Your task to perform on an android device: create a new album in the google photos Image 0: 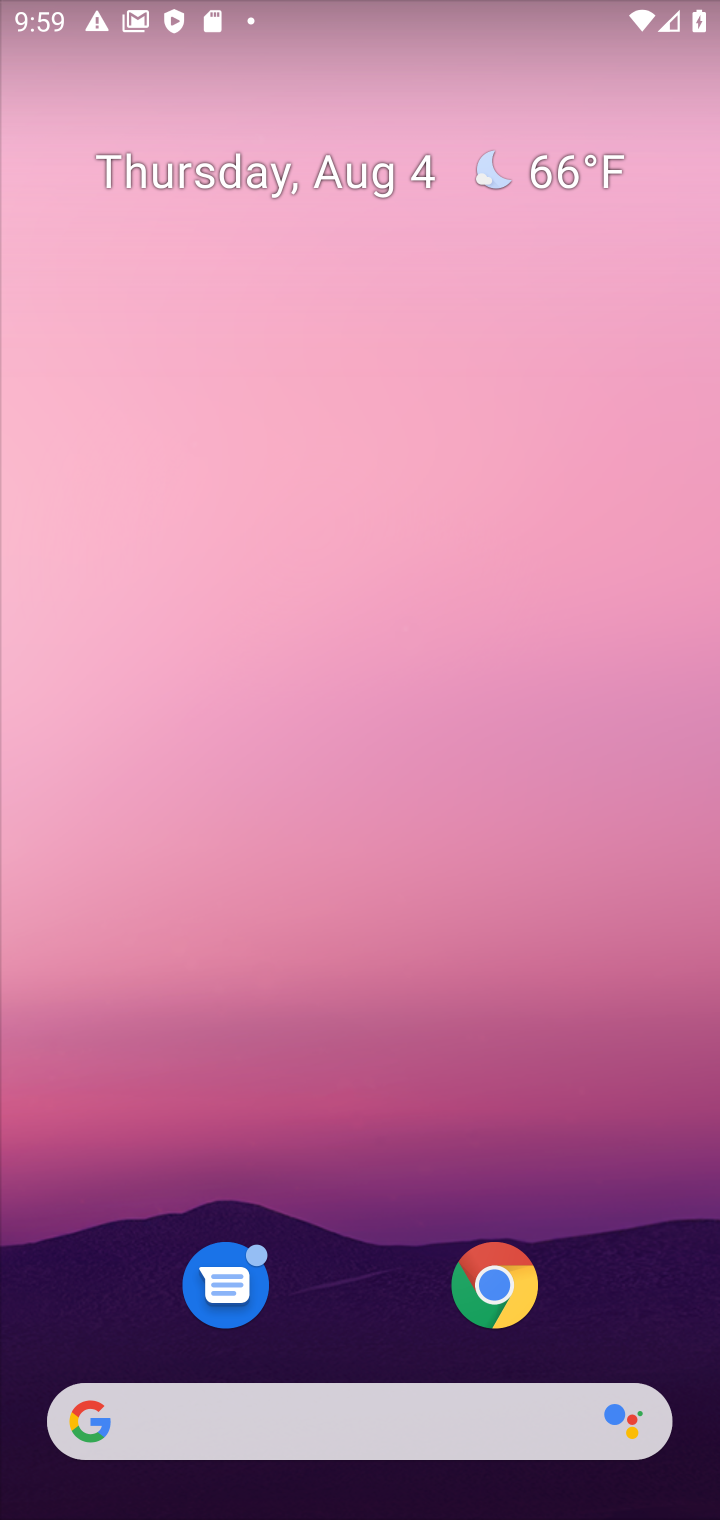
Step 0: drag from (303, 1260) to (353, 46)
Your task to perform on an android device: create a new album in the google photos Image 1: 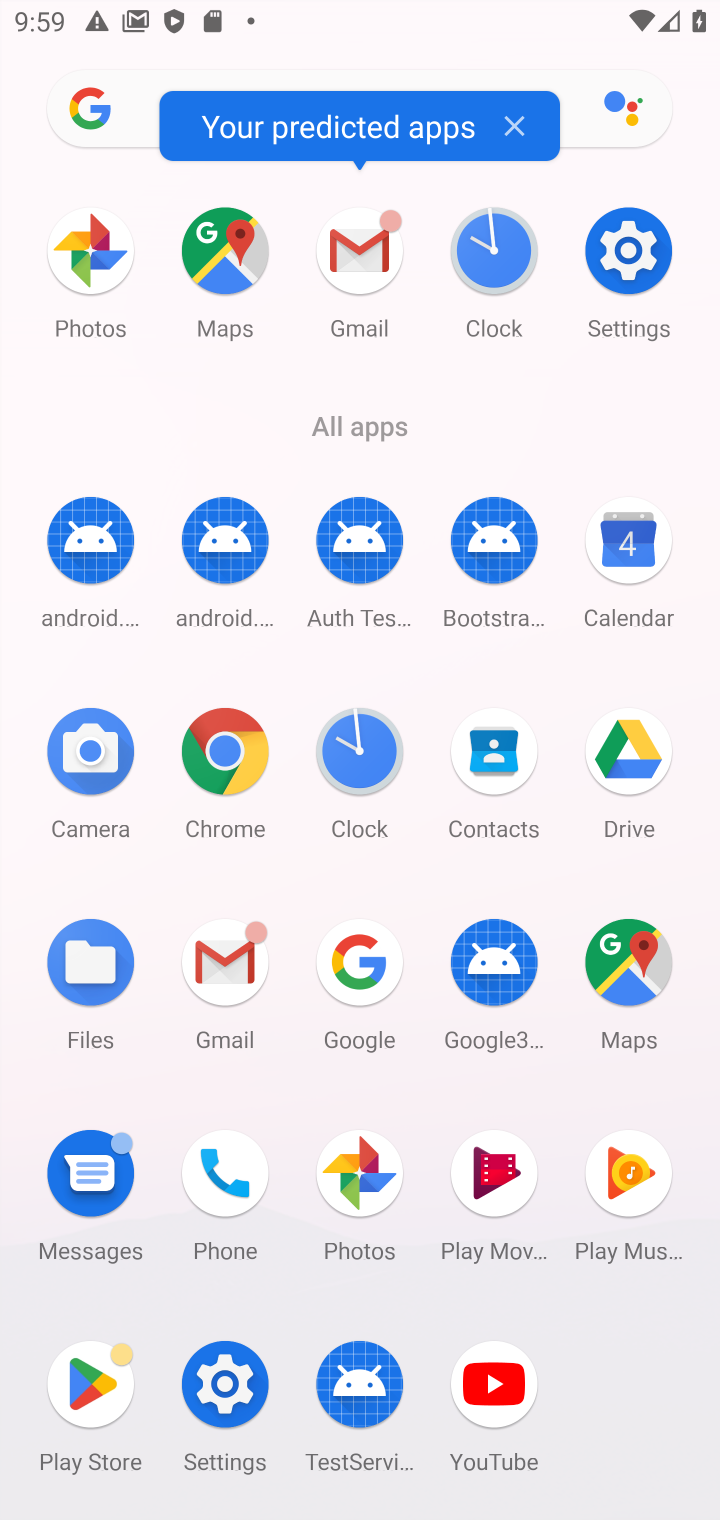
Step 1: click (350, 1164)
Your task to perform on an android device: create a new album in the google photos Image 2: 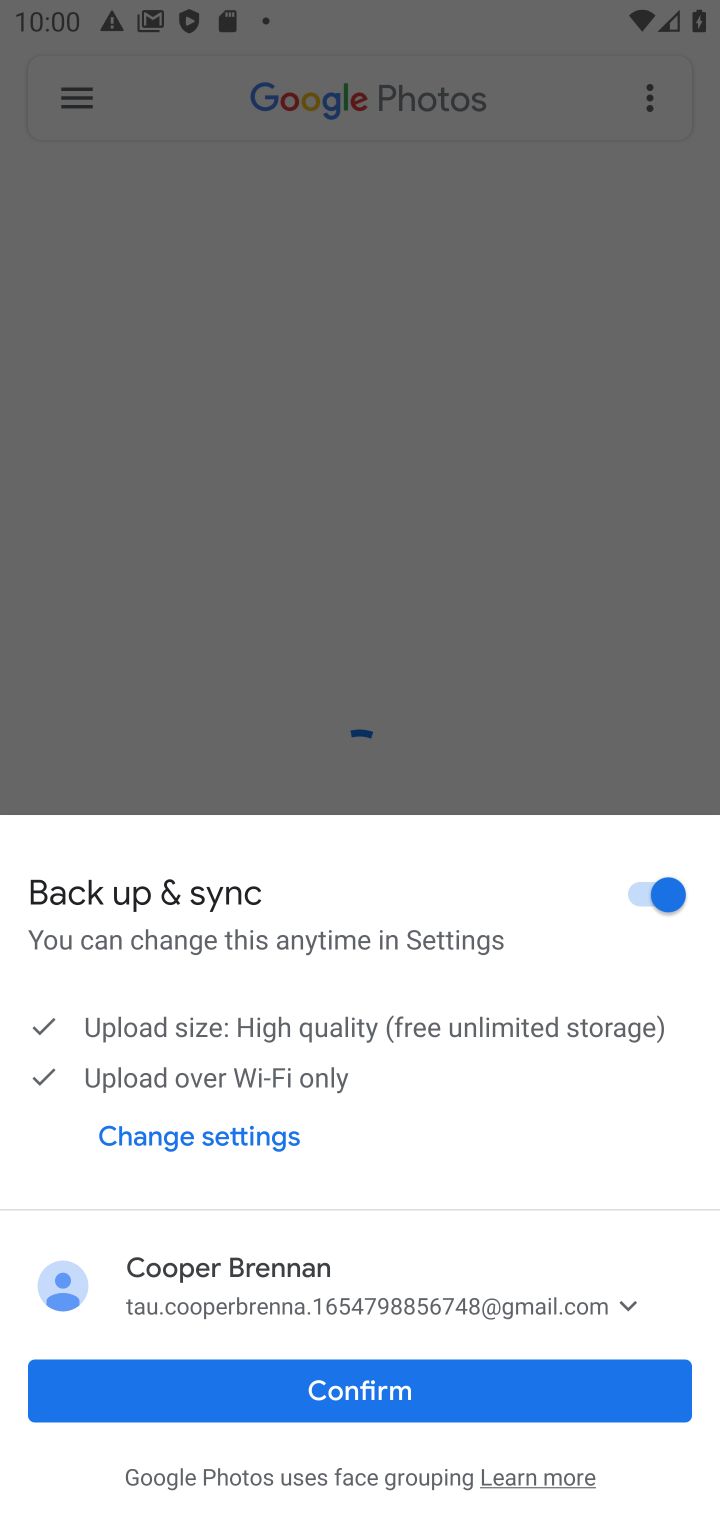
Step 2: click (463, 1392)
Your task to perform on an android device: create a new album in the google photos Image 3: 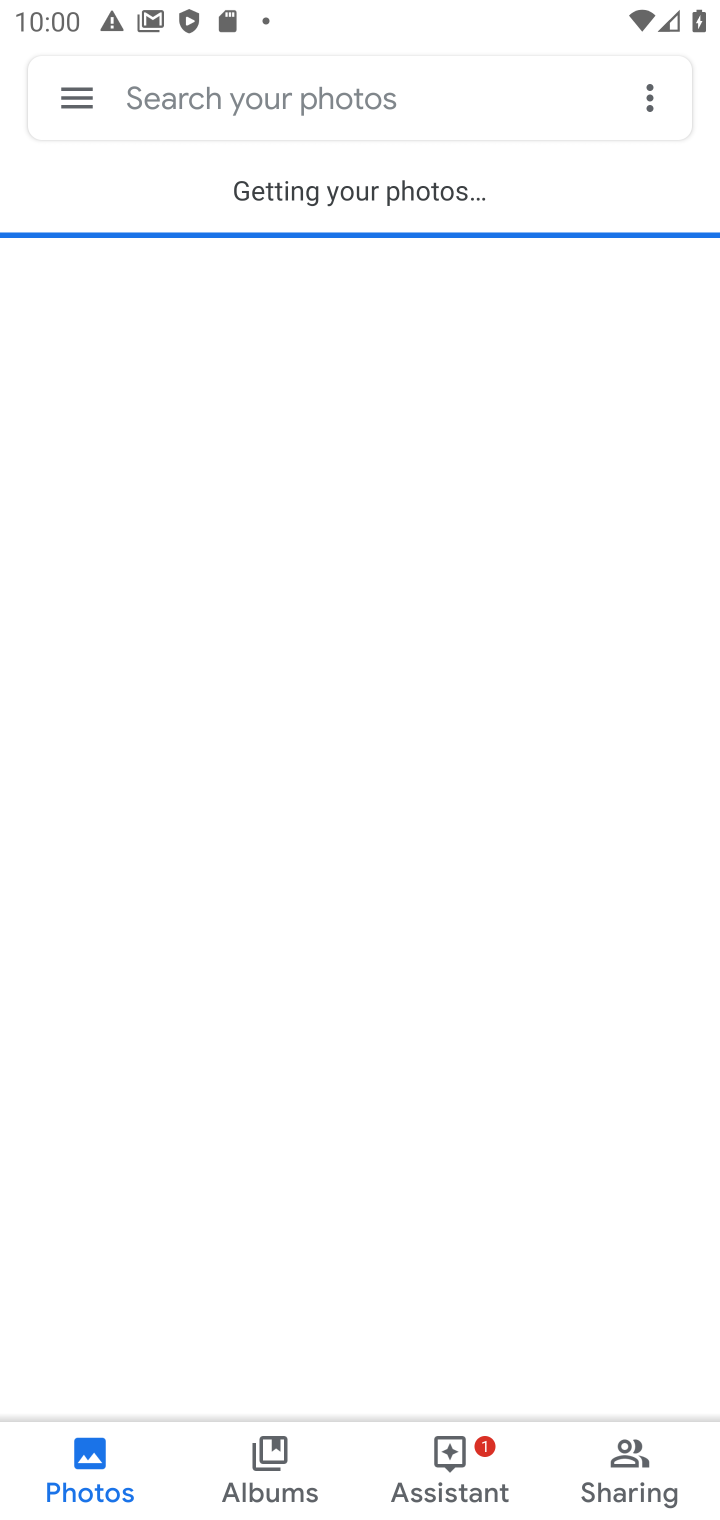
Step 3: click (67, 99)
Your task to perform on an android device: create a new album in the google photos Image 4: 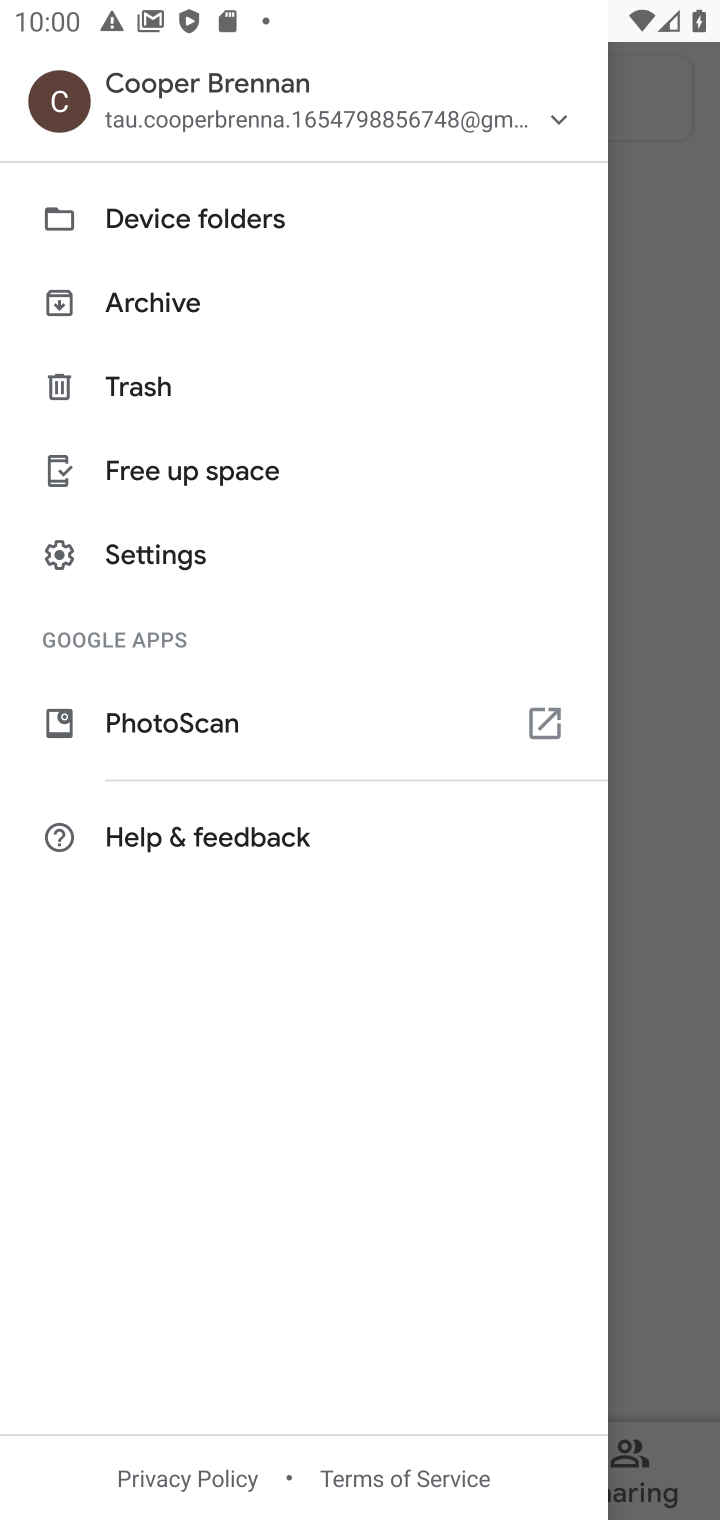
Step 4: click (649, 484)
Your task to perform on an android device: create a new album in the google photos Image 5: 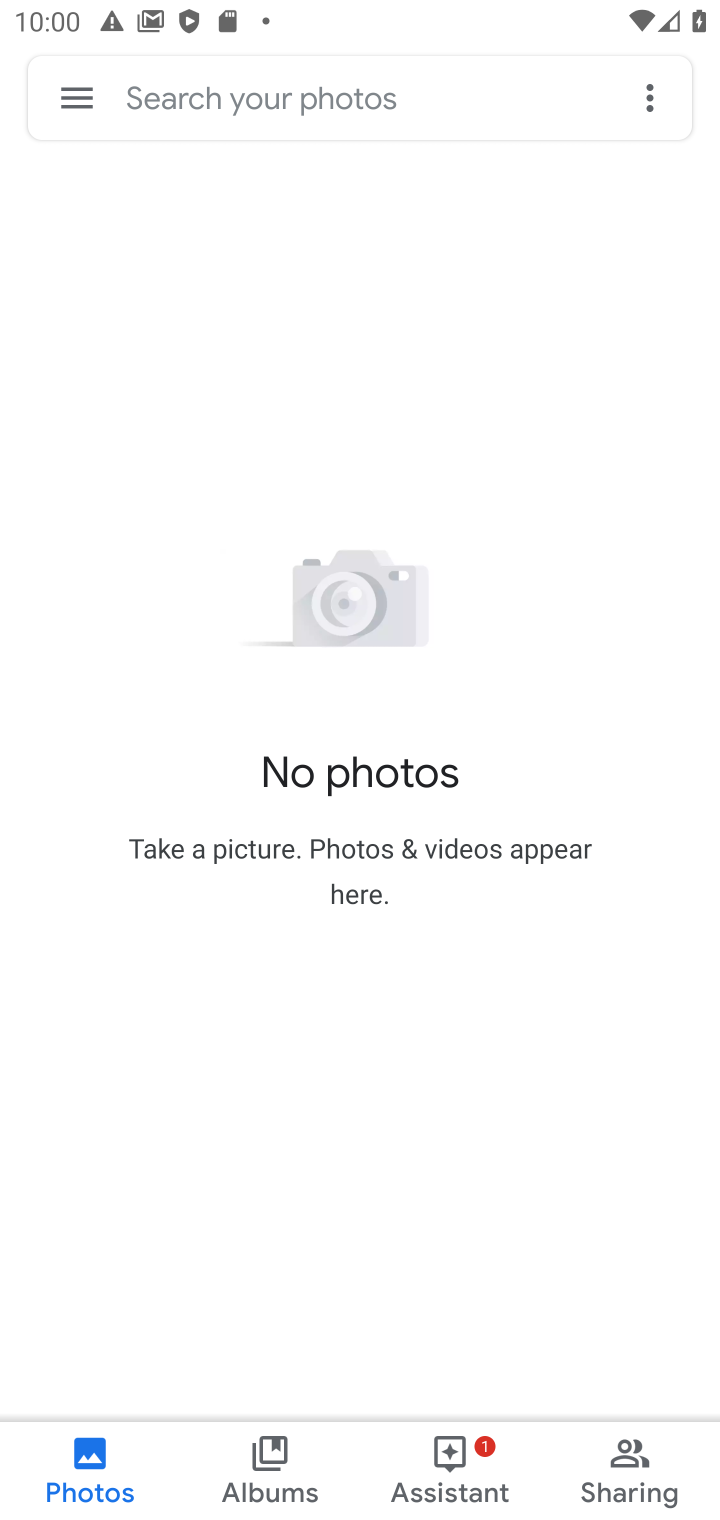
Step 5: task complete